Your task to perform on an android device: change the clock display to digital Image 0: 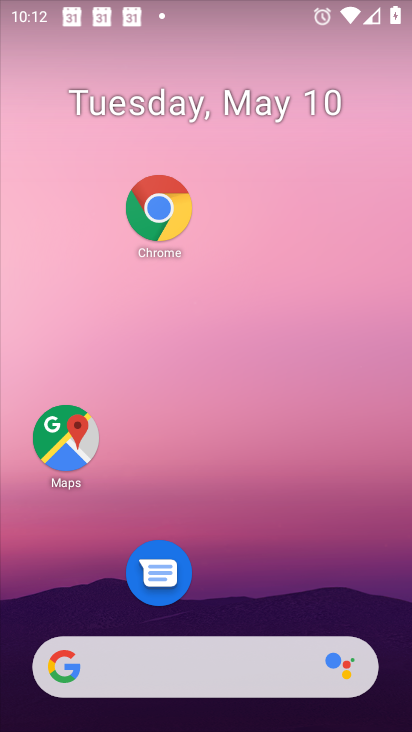
Step 0: drag from (289, 704) to (270, 251)
Your task to perform on an android device: change the clock display to digital Image 1: 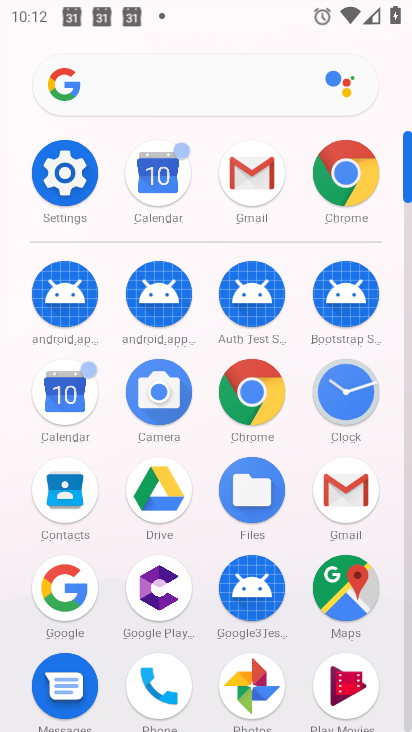
Step 1: click (334, 401)
Your task to perform on an android device: change the clock display to digital Image 2: 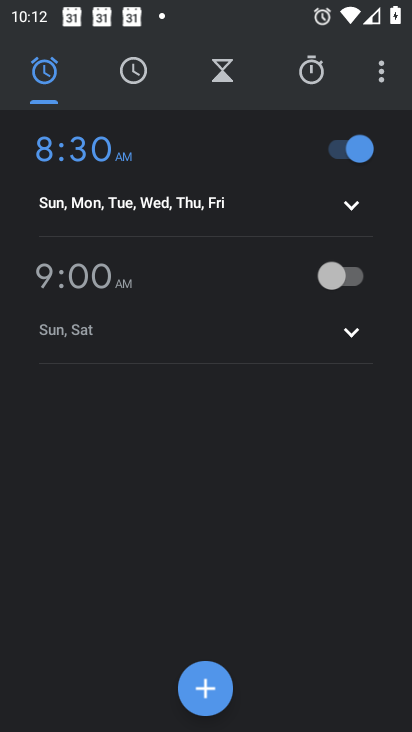
Step 2: click (377, 97)
Your task to perform on an android device: change the clock display to digital Image 3: 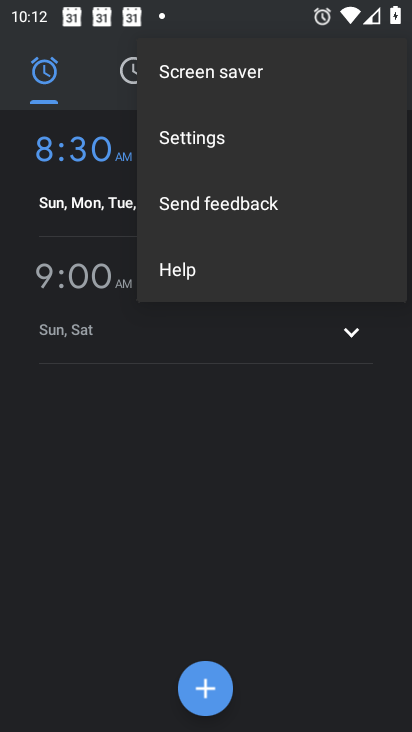
Step 3: click (219, 141)
Your task to perform on an android device: change the clock display to digital Image 4: 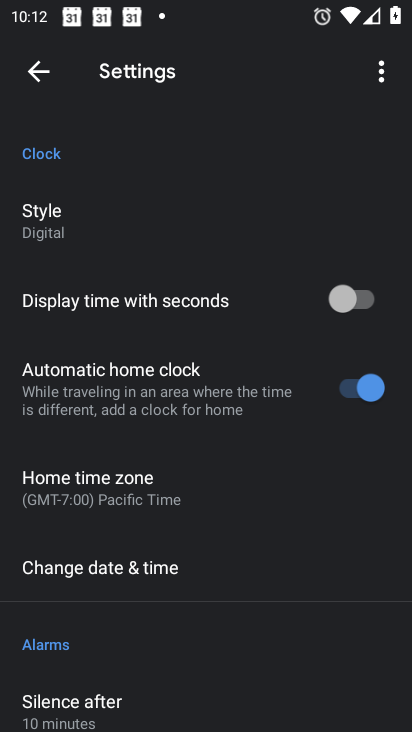
Step 4: click (111, 230)
Your task to perform on an android device: change the clock display to digital Image 5: 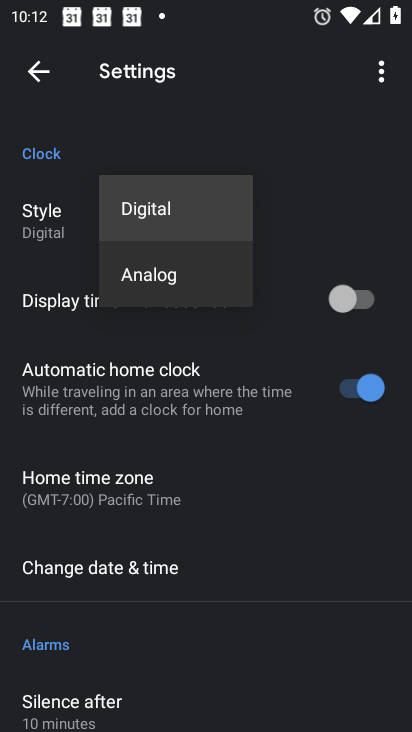
Step 5: click (144, 203)
Your task to perform on an android device: change the clock display to digital Image 6: 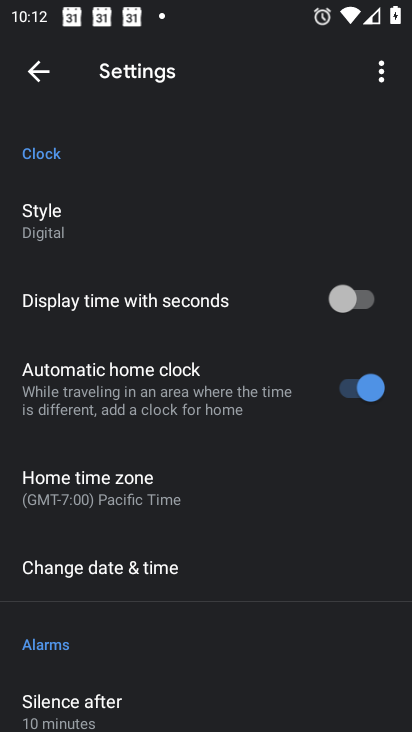
Step 6: task complete